Your task to perform on an android device: check the backup settings in the google photos Image 0: 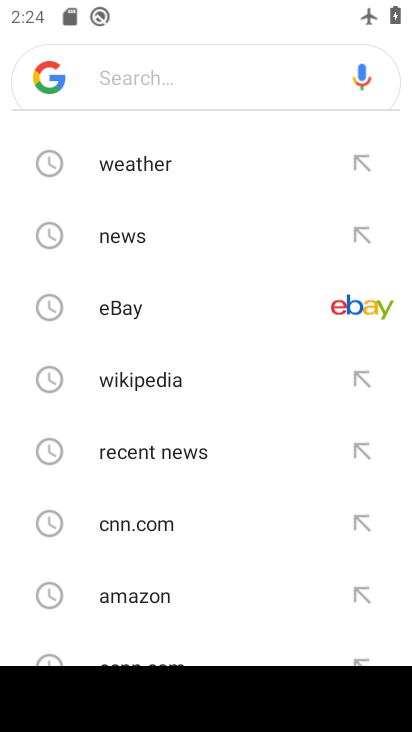
Step 0: press home button
Your task to perform on an android device: check the backup settings in the google photos Image 1: 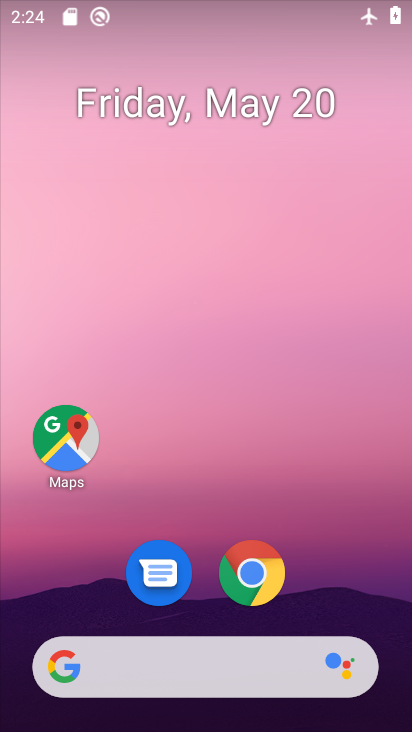
Step 1: drag from (213, 616) to (197, 216)
Your task to perform on an android device: check the backup settings in the google photos Image 2: 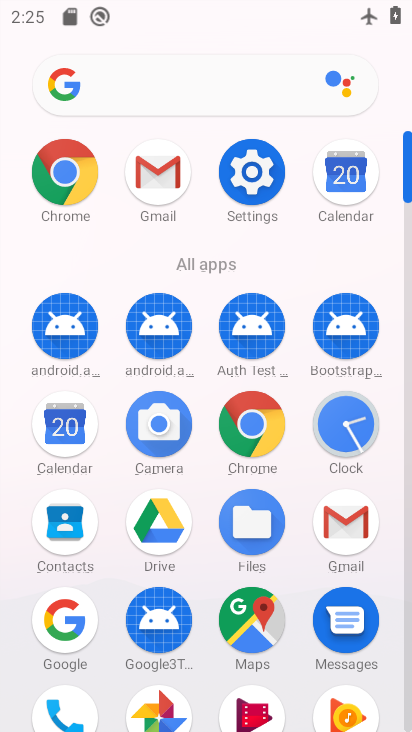
Step 2: drag from (208, 586) to (189, 320)
Your task to perform on an android device: check the backup settings in the google photos Image 3: 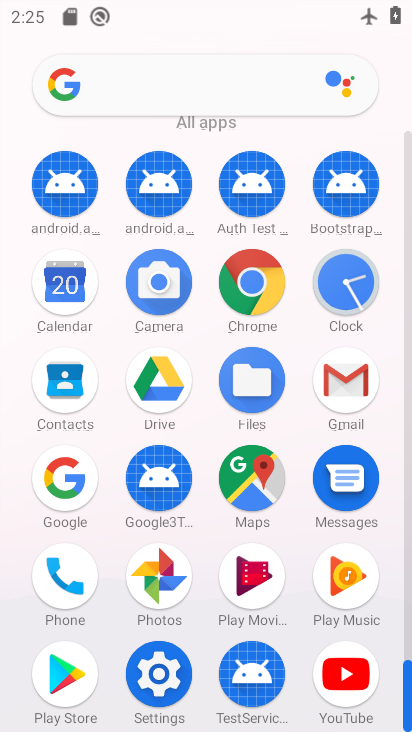
Step 3: click (159, 555)
Your task to perform on an android device: check the backup settings in the google photos Image 4: 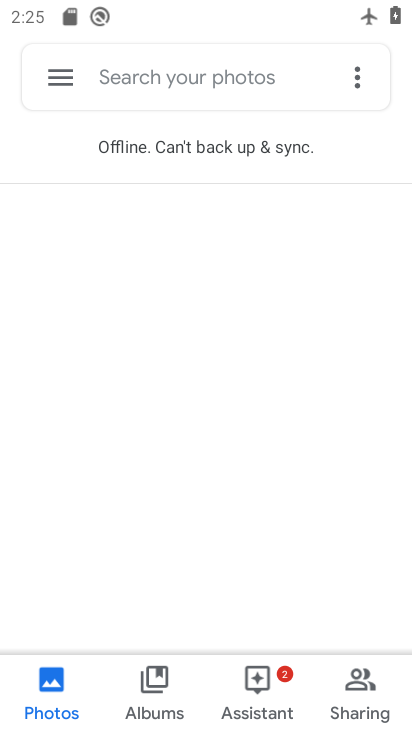
Step 4: click (59, 77)
Your task to perform on an android device: check the backup settings in the google photos Image 5: 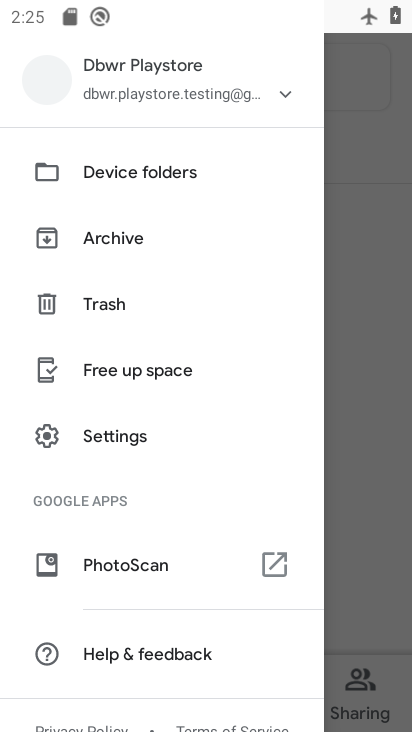
Step 5: click (122, 432)
Your task to perform on an android device: check the backup settings in the google photos Image 6: 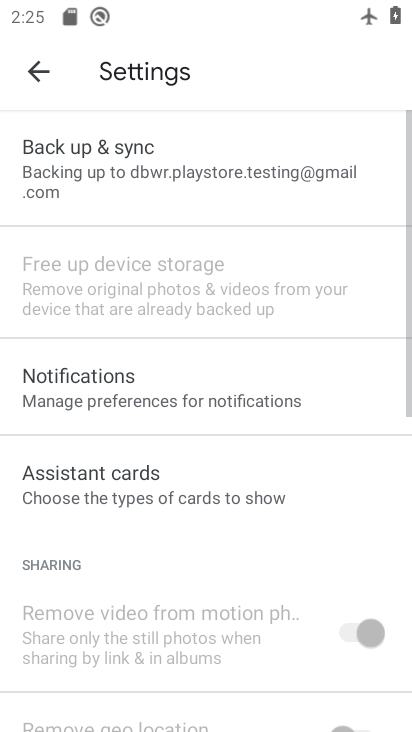
Step 6: click (107, 193)
Your task to perform on an android device: check the backup settings in the google photos Image 7: 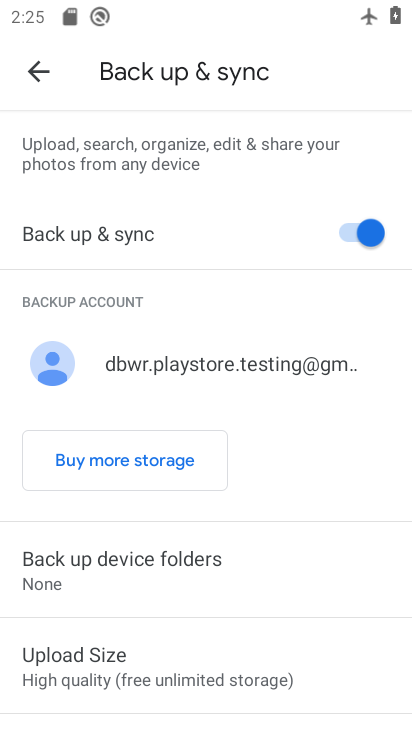
Step 7: task complete